Your task to perform on an android device: set the timer Image 0: 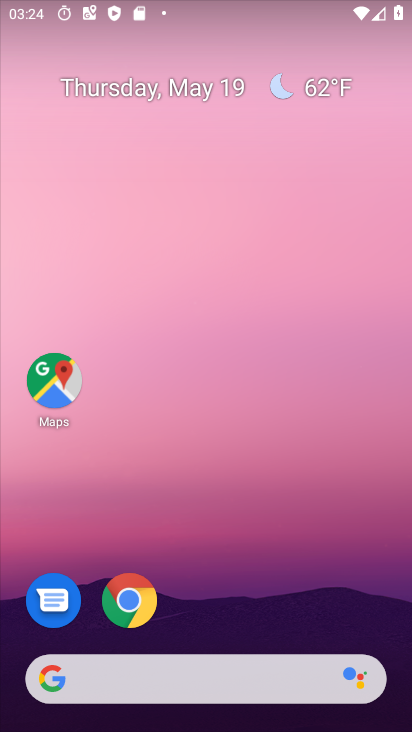
Step 0: press home button
Your task to perform on an android device: set the timer Image 1: 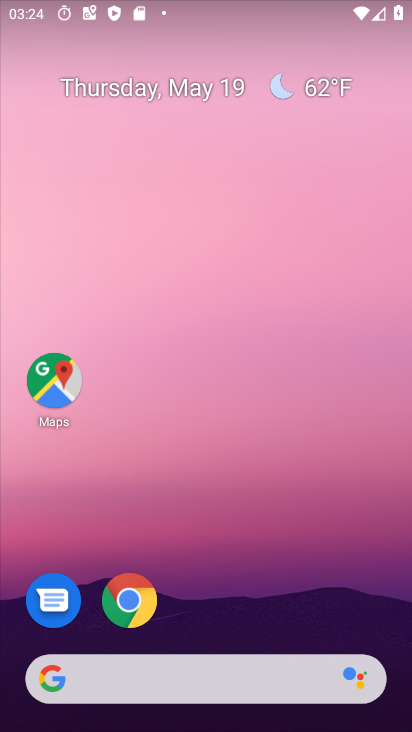
Step 1: drag from (32, 612) to (234, 106)
Your task to perform on an android device: set the timer Image 2: 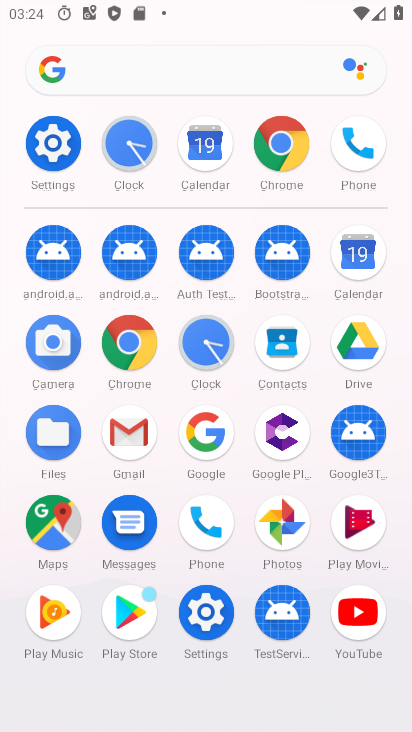
Step 2: click (198, 333)
Your task to perform on an android device: set the timer Image 3: 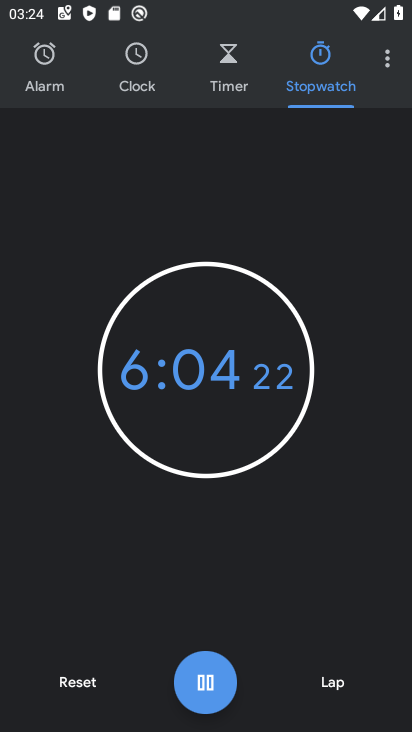
Step 3: click (218, 59)
Your task to perform on an android device: set the timer Image 4: 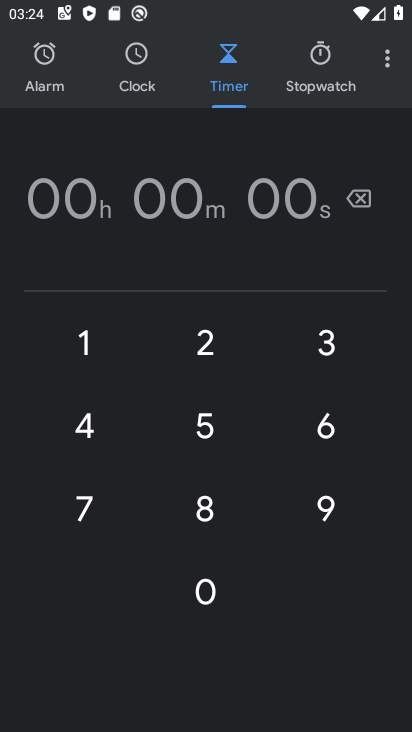
Step 4: click (49, 323)
Your task to perform on an android device: set the timer Image 5: 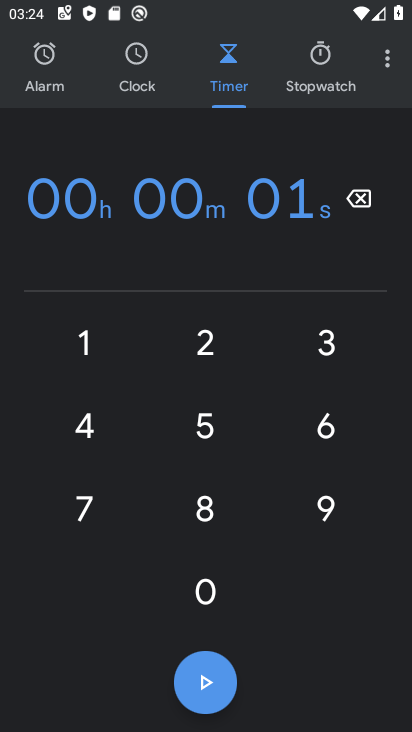
Step 5: click (194, 579)
Your task to perform on an android device: set the timer Image 6: 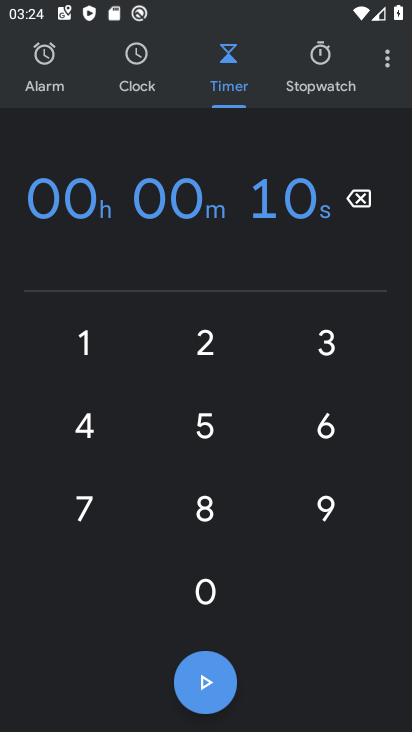
Step 6: click (194, 580)
Your task to perform on an android device: set the timer Image 7: 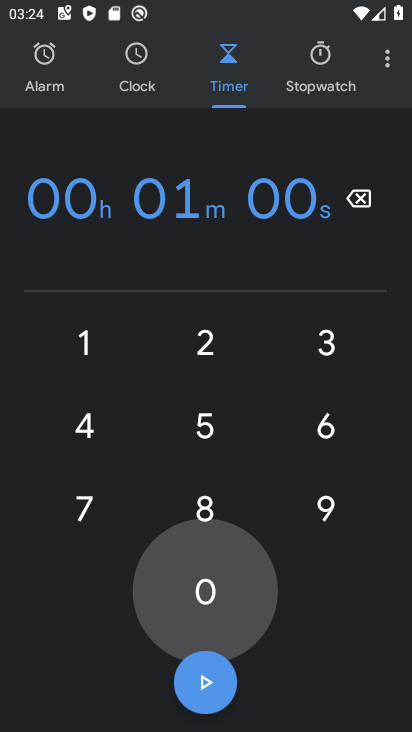
Step 7: click (194, 580)
Your task to perform on an android device: set the timer Image 8: 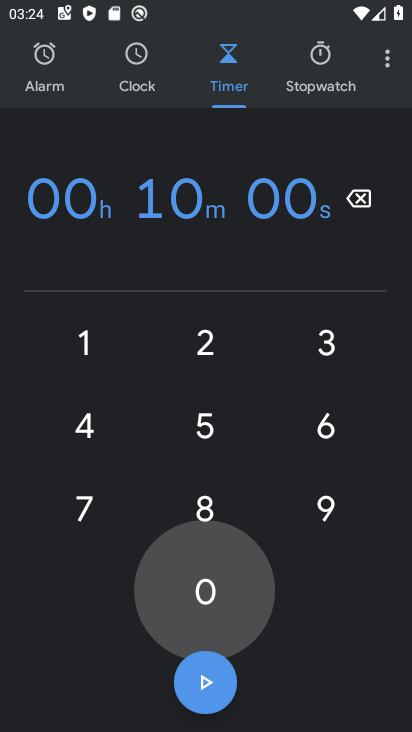
Step 8: click (194, 580)
Your task to perform on an android device: set the timer Image 9: 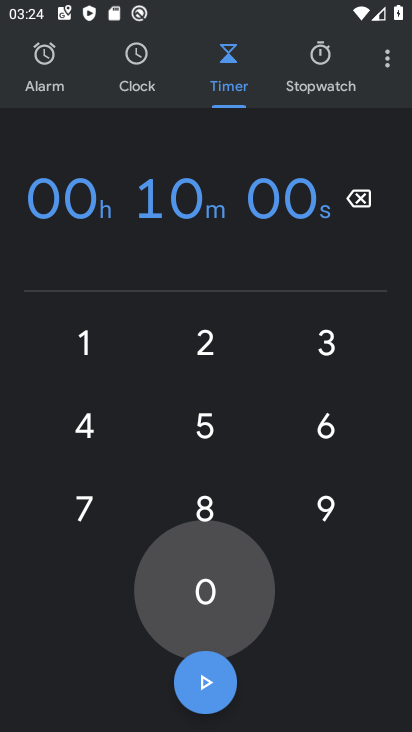
Step 9: click (194, 580)
Your task to perform on an android device: set the timer Image 10: 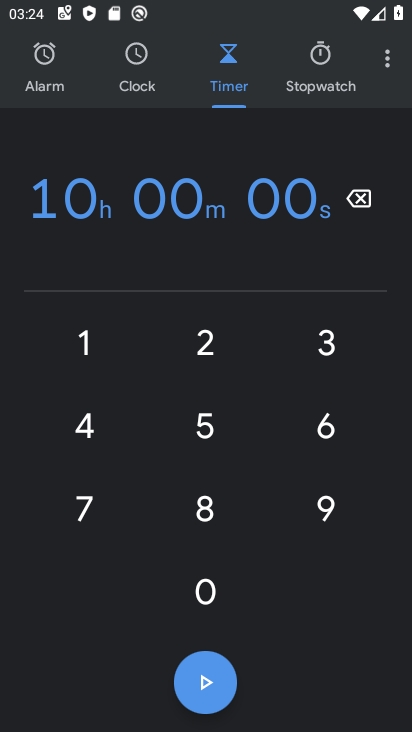
Step 10: click (199, 685)
Your task to perform on an android device: set the timer Image 11: 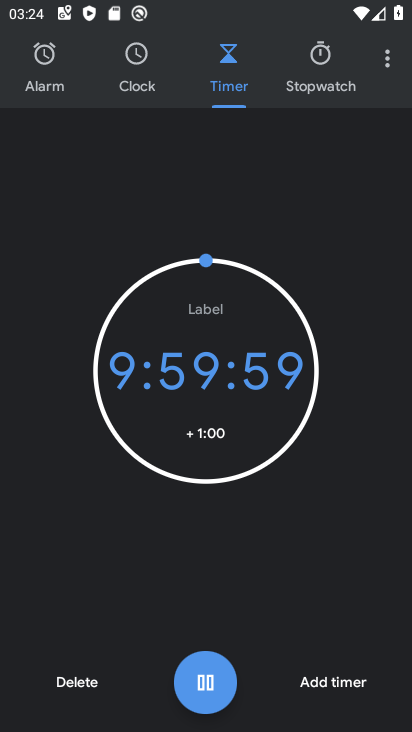
Step 11: task complete